Your task to perform on an android device: When is my next meeting? Image 0: 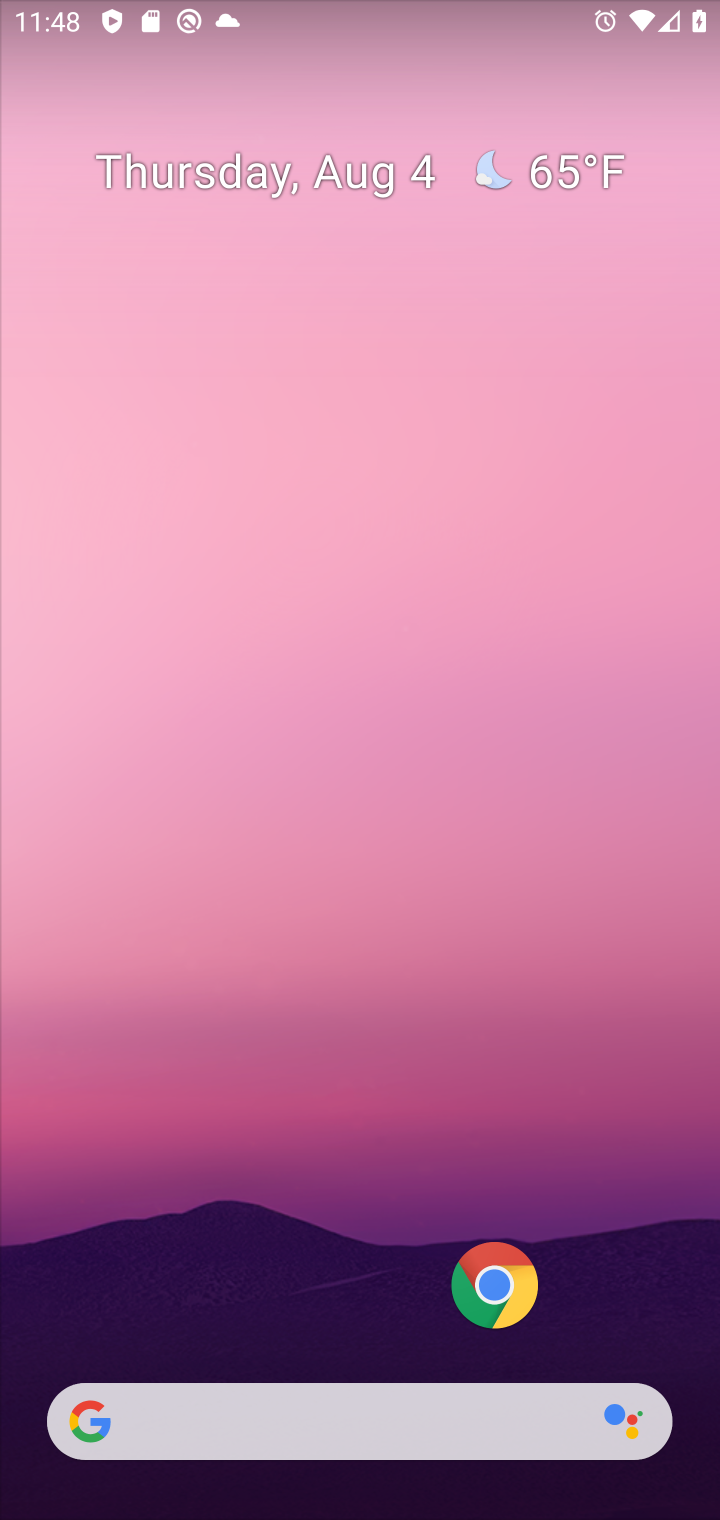
Step 0: press home button
Your task to perform on an android device: When is my next meeting? Image 1: 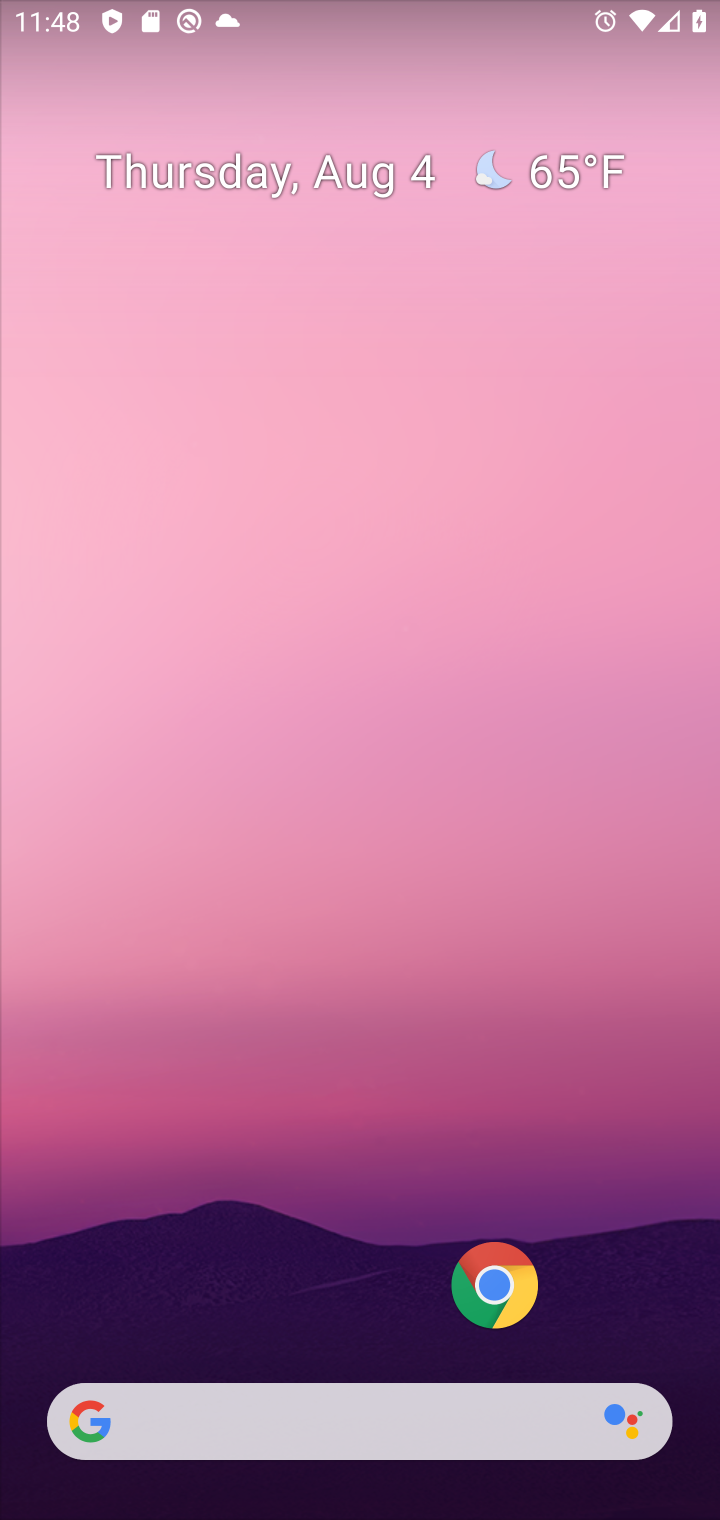
Step 1: press home button
Your task to perform on an android device: When is my next meeting? Image 2: 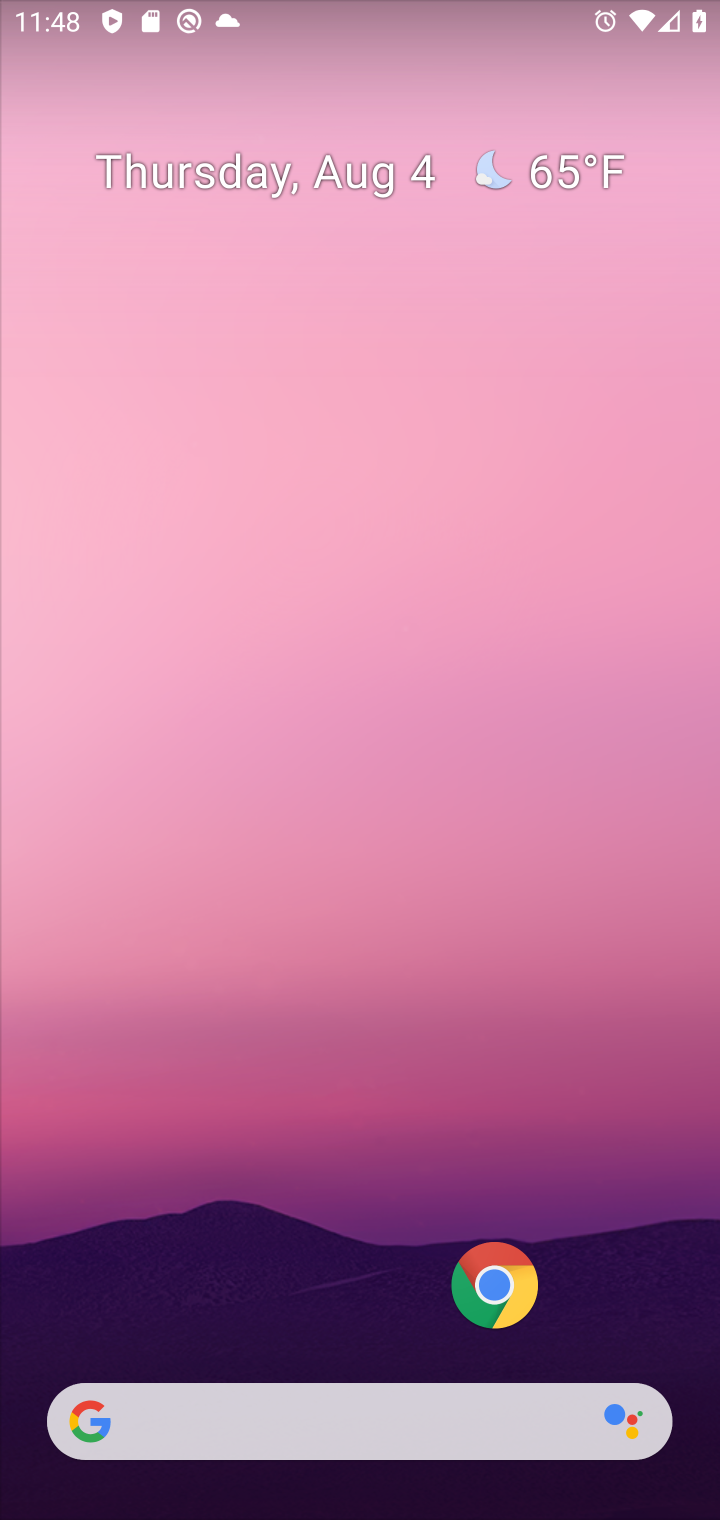
Step 2: click (270, 295)
Your task to perform on an android device: When is my next meeting? Image 3: 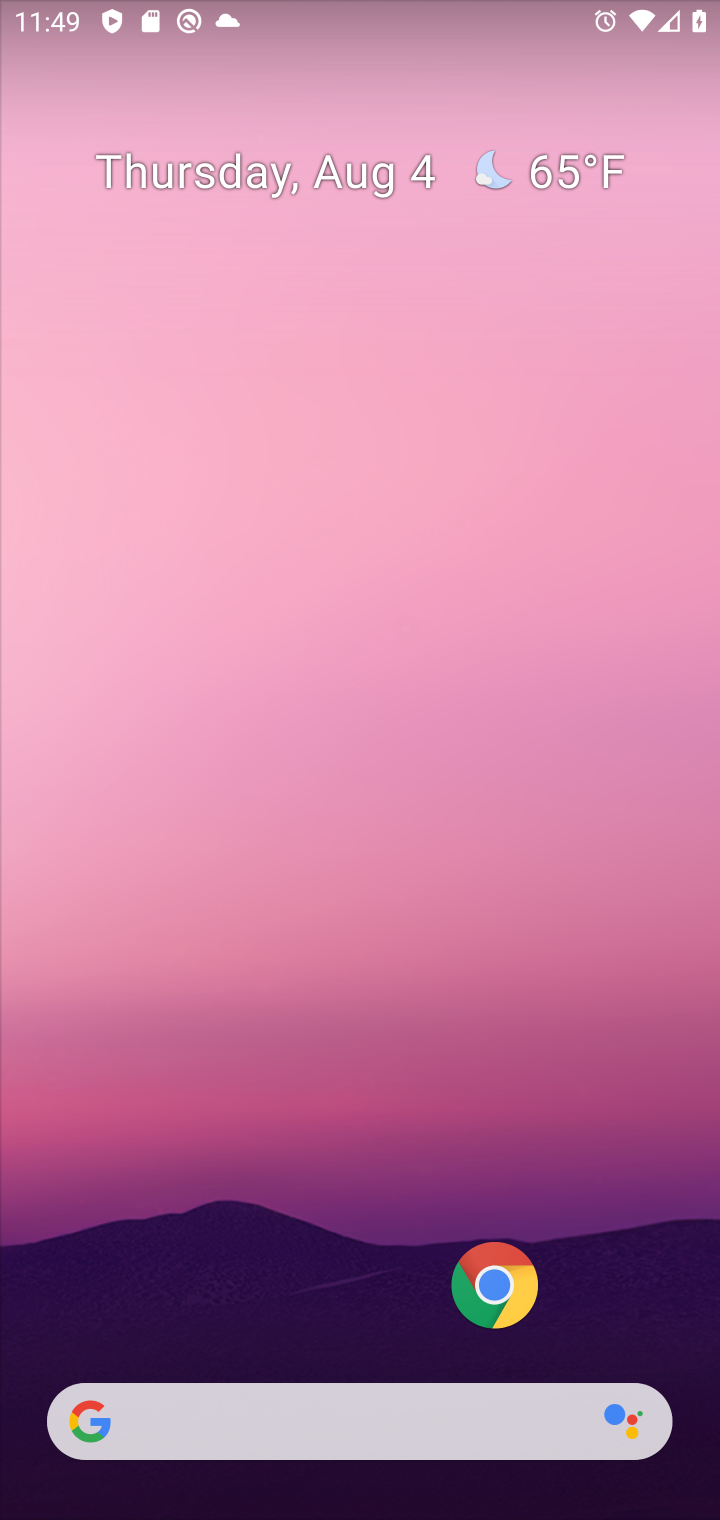
Step 3: drag from (184, 1357) to (0, 44)
Your task to perform on an android device: When is my next meeting? Image 4: 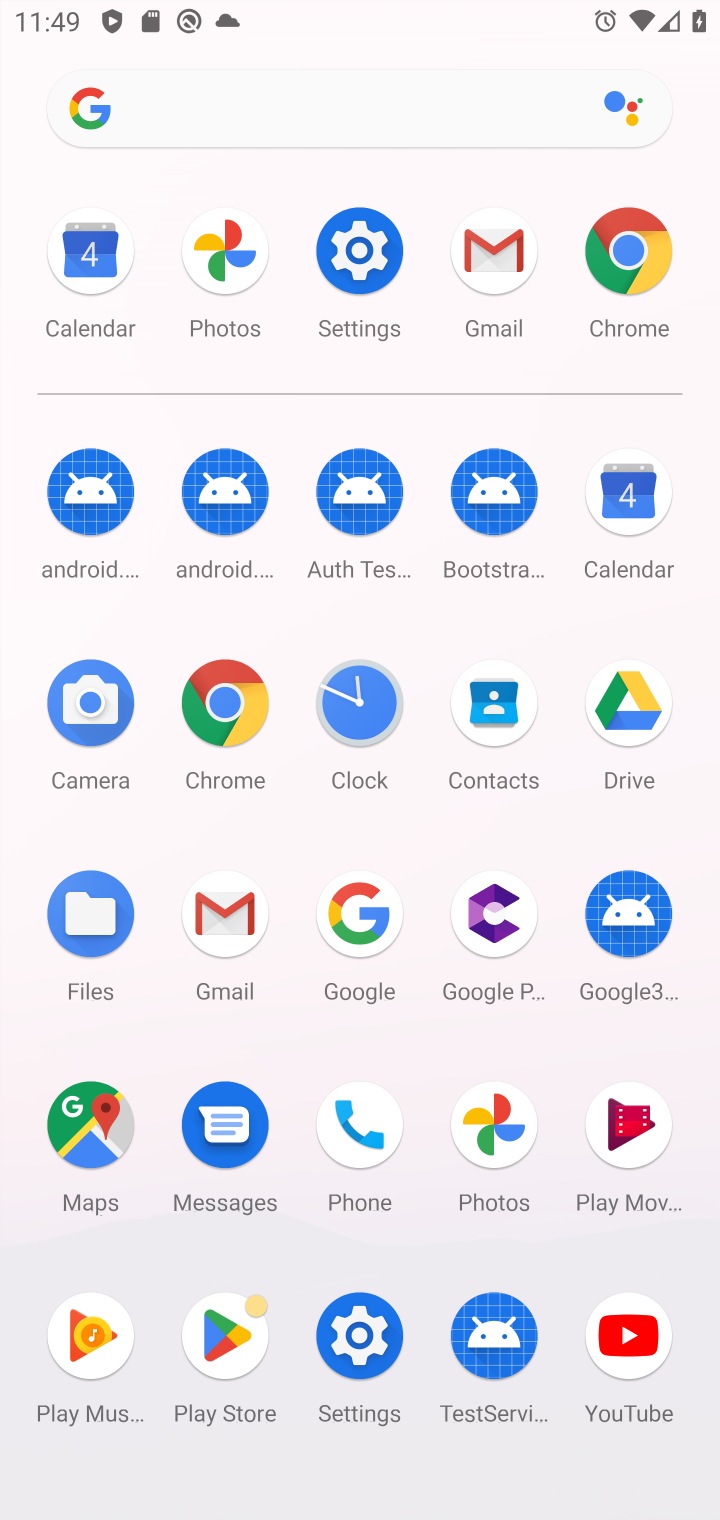
Step 4: click (598, 535)
Your task to perform on an android device: When is my next meeting? Image 5: 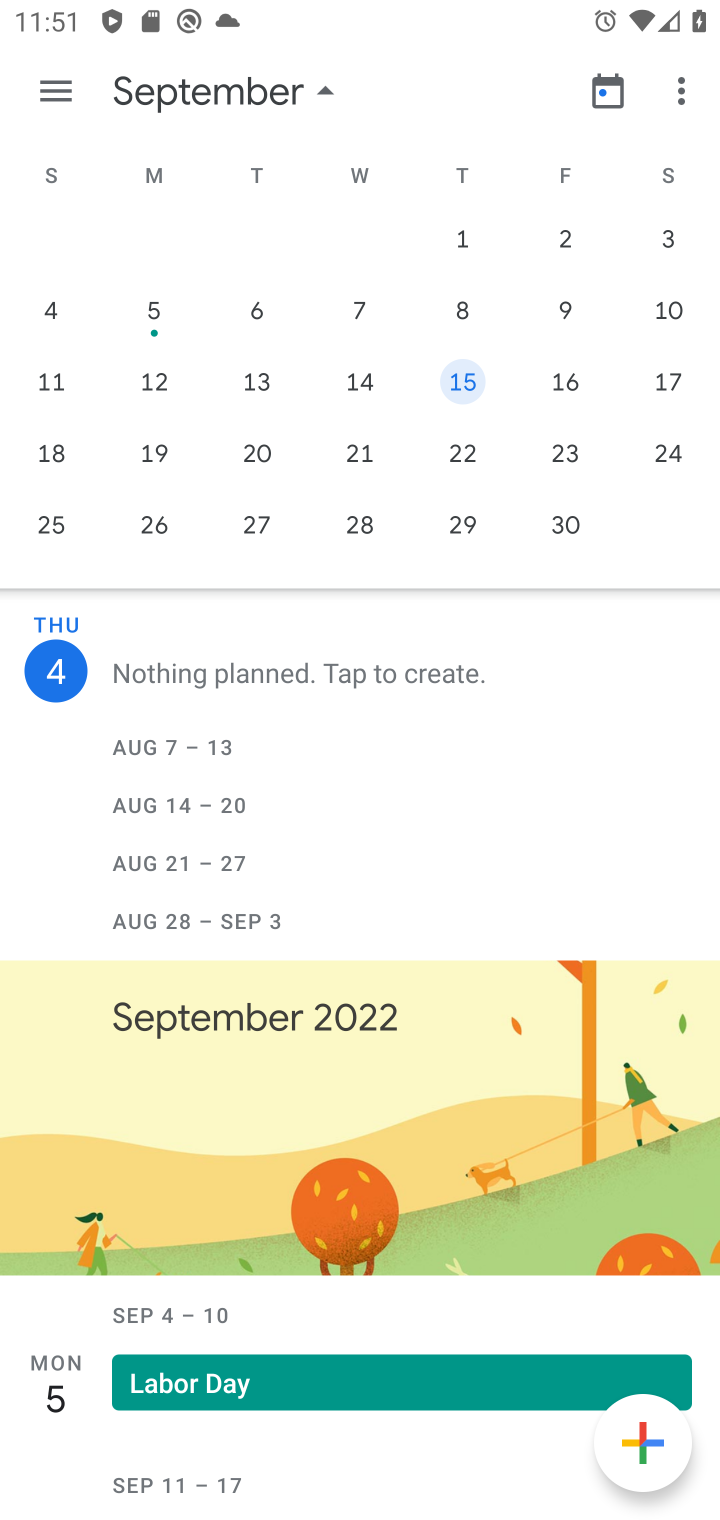
Step 5: drag from (160, 388) to (687, 550)
Your task to perform on an android device: When is my next meeting? Image 6: 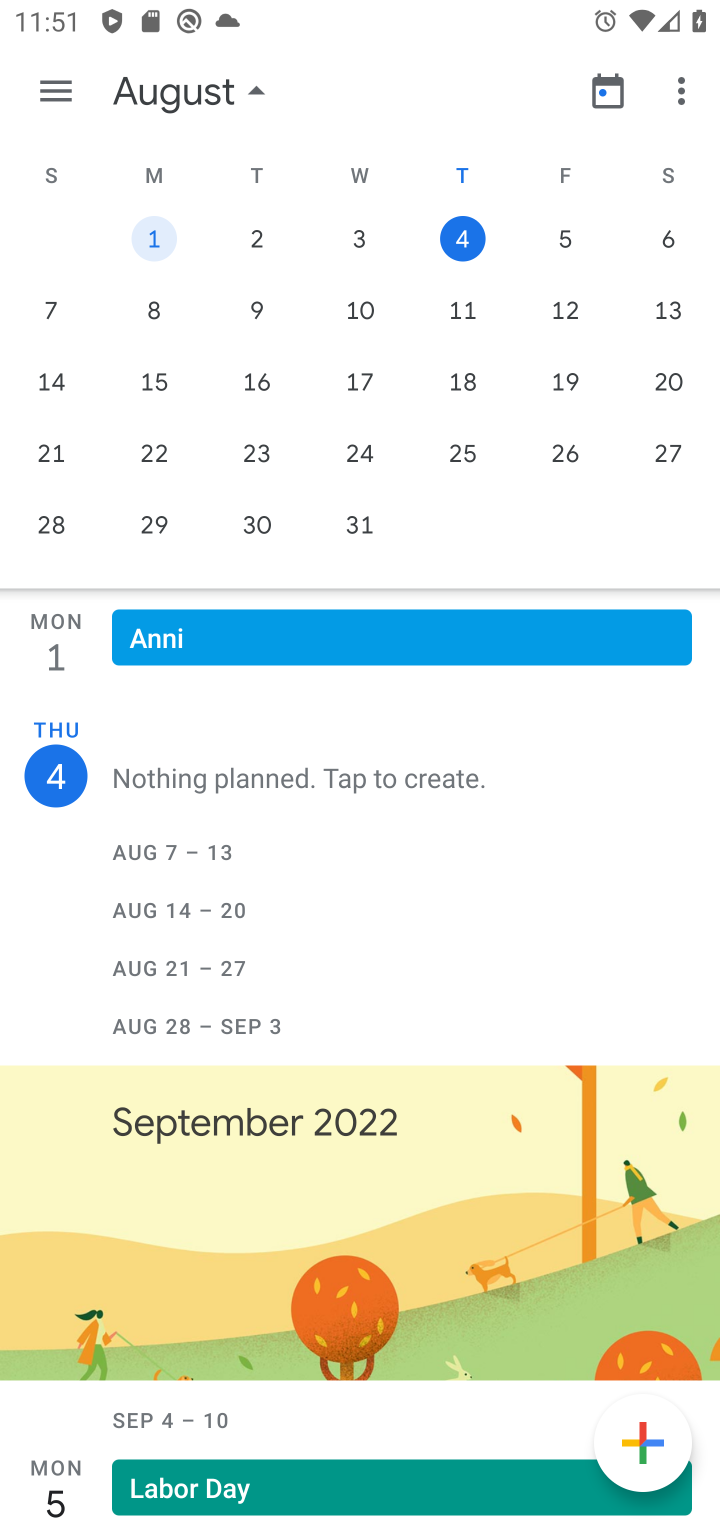
Step 6: click (572, 242)
Your task to perform on an android device: When is my next meeting? Image 7: 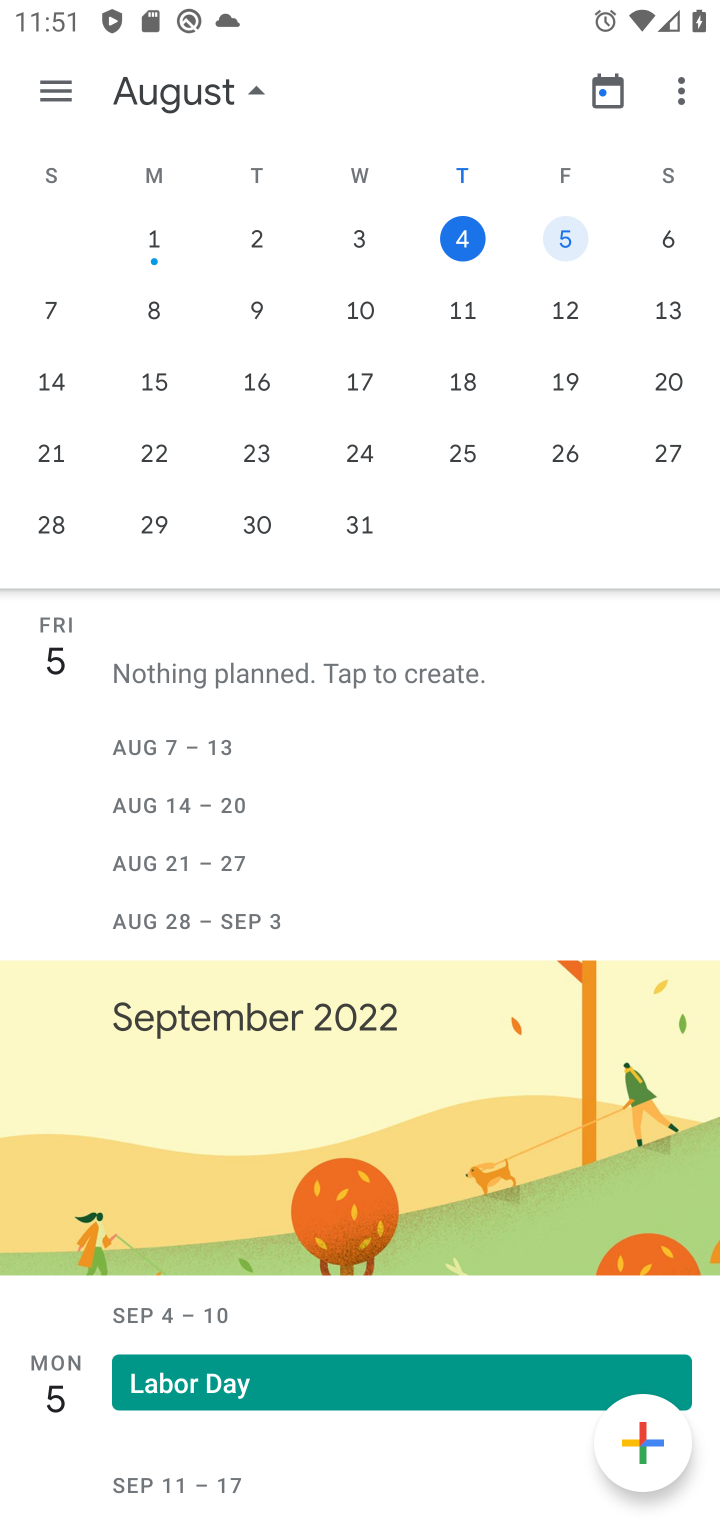
Step 7: task complete